Your task to perform on an android device: star an email in the gmail app Image 0: 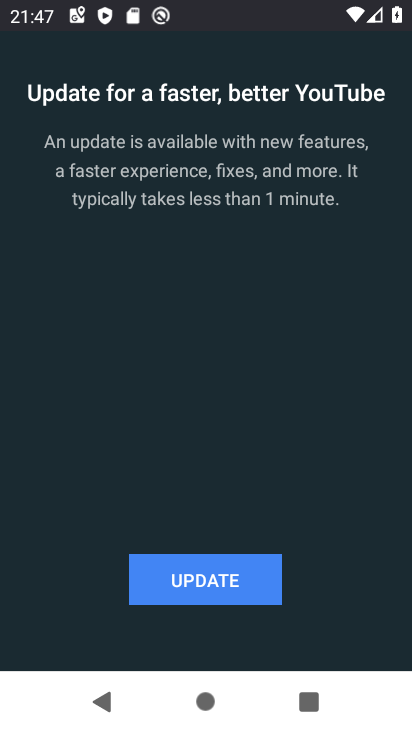
Step 0: press home button
Your task to perform on an android device: star an email in the gmail app Image 1: 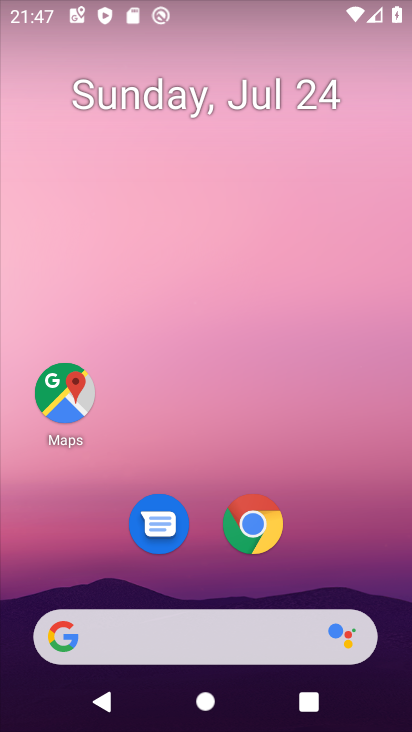
Step 1: drag from (203, 636) to (216, 566)
Your task to perform on an android device: star an email in the gmail app Image 2: 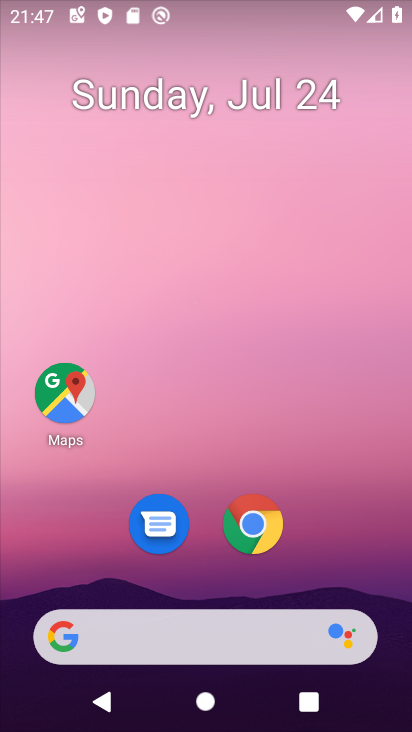
Step 2: drag from (161, 641) to (296, 162)
Your task to perform on an android device: star an email in the gmail app Image 3: 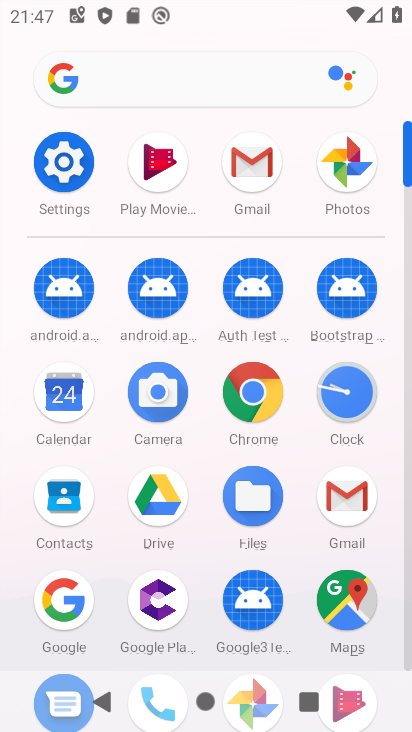
Step 3: click (244, 168)
Your task to perform on an android device: star an email in the gmail app Image 4: 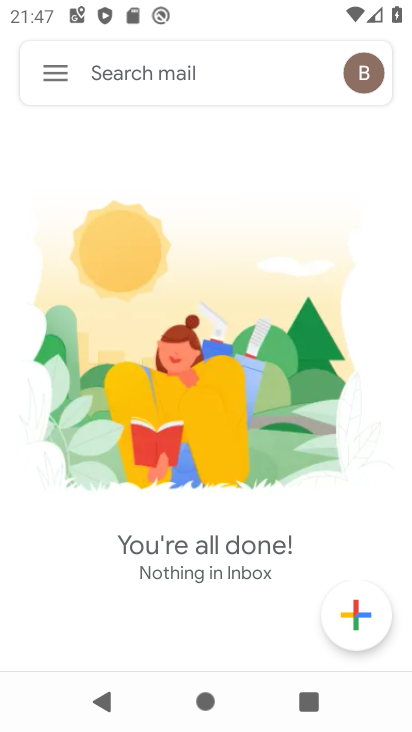
Step 4: task complete